Your task to perform on an android device: Show me popular games on the Play Store Image 0: 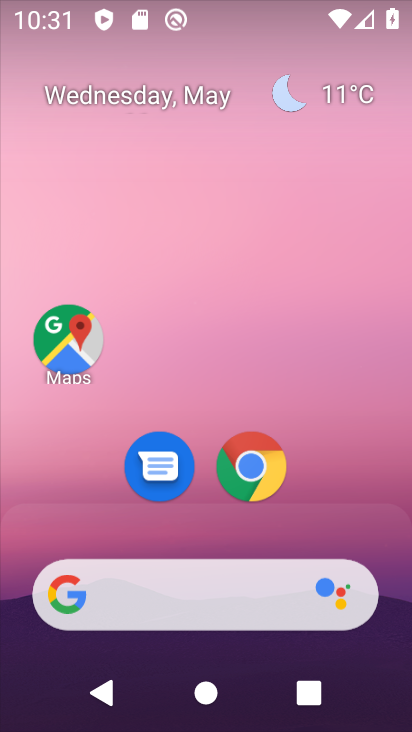
Step 0: drag from (342, 526) to (271, 10)
Your task to perform on an android device: Show me popular games on the Play Store Image 1: 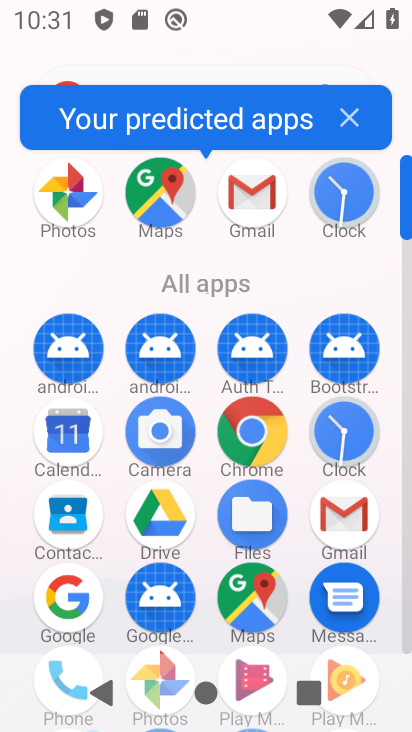
Step 1: click (348, 121)
Your task to perform on an android device: Show me popular games on the Play Store Image 2: 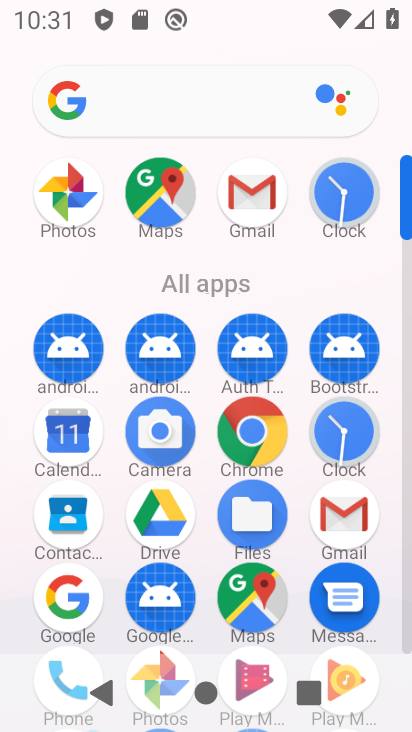
Step 2: drag from (206, 478) to (222, 252)
Your task to perform on an android device: Show me popular games on the Play Store Image 3: 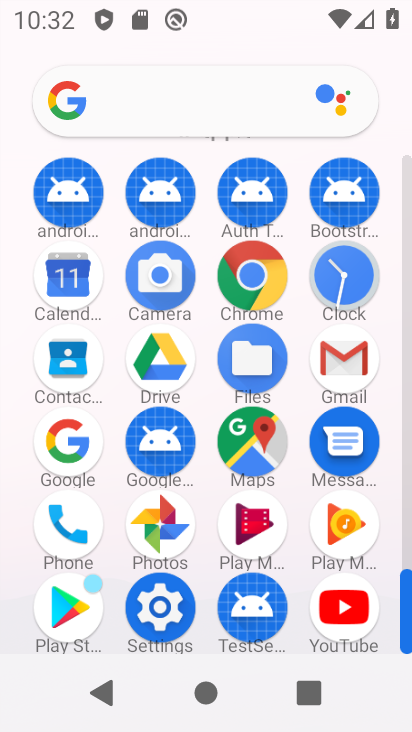
Step 3: click (69, 603)
Your task to perform on an android device: Show me popular games on the Play Store Image 4: 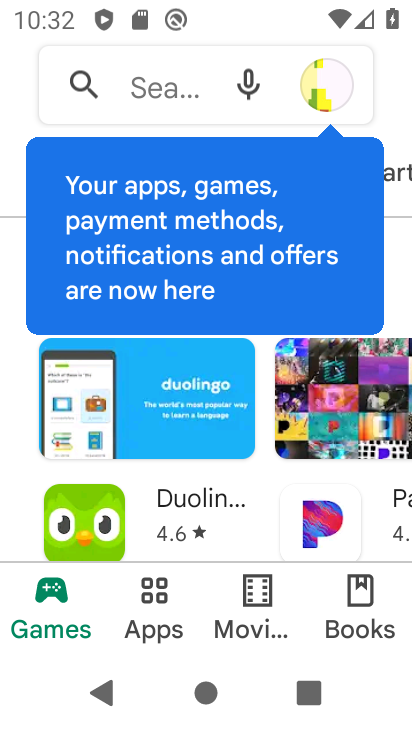
Step 4: click (194, 93)
Your task to perform on an android device: Show me popular games on the Play Store Image 5: 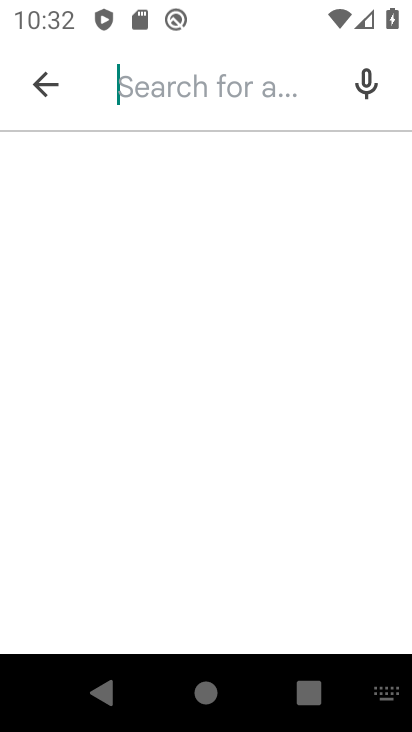
Step 5: type "popular games"
Your task to perform on an android device: Show me popular games on the Play Store Image 6: 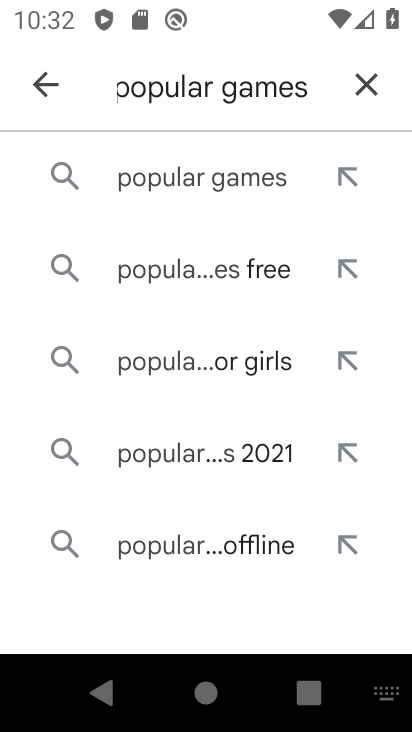
Step 6: click (230, 179)
Your task to perform on an android device: Show me popular games on the Play Store Image 7: 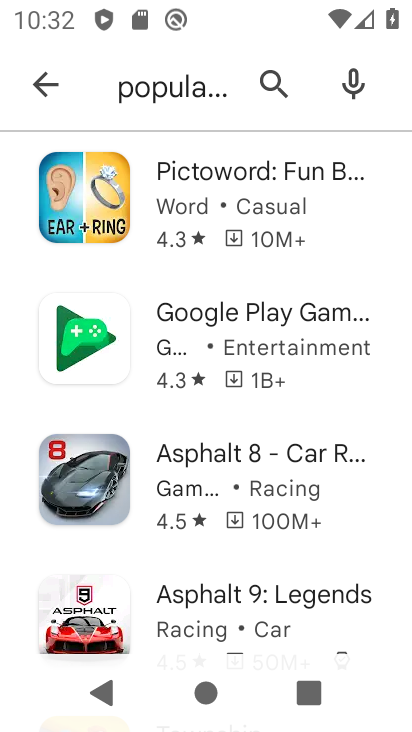
Step 7: task complete